Your task to perform on an android device: Go to ESPN.com Image 0: 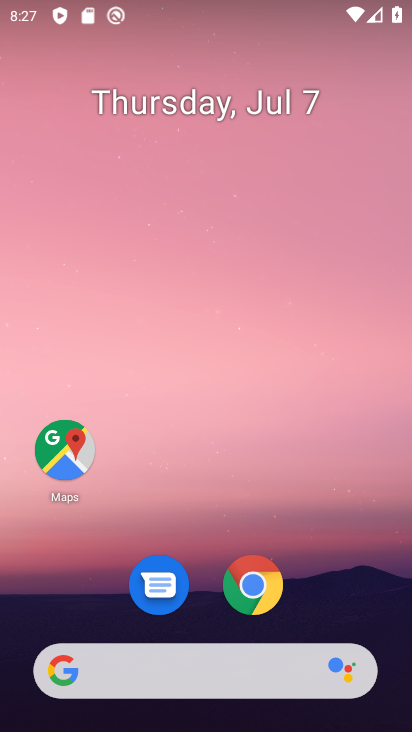
Step 0: click (267, 582)
Your task to perform on an android device: Go to ESPN.com Image 1: 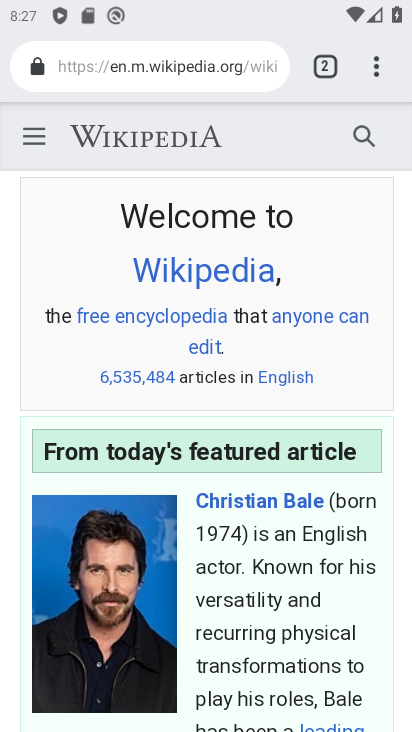
Step 1: click (378, 64)
Your task to perform on an android device: Go to ESPN.com Image 2: 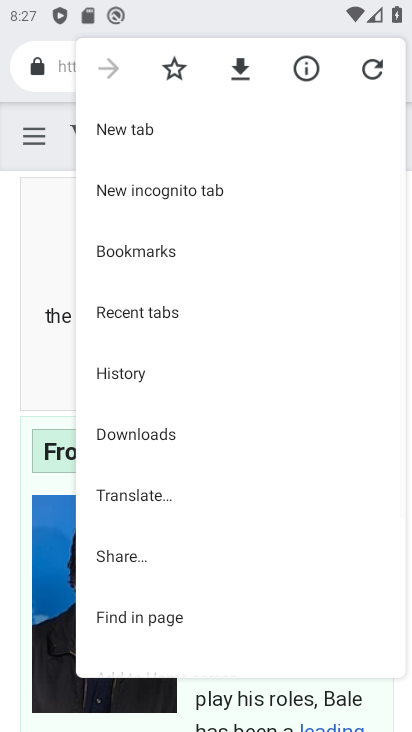
Step 2: click (196, 123)
Your task to perform on an android device: Go to ESPN.com Image 3: 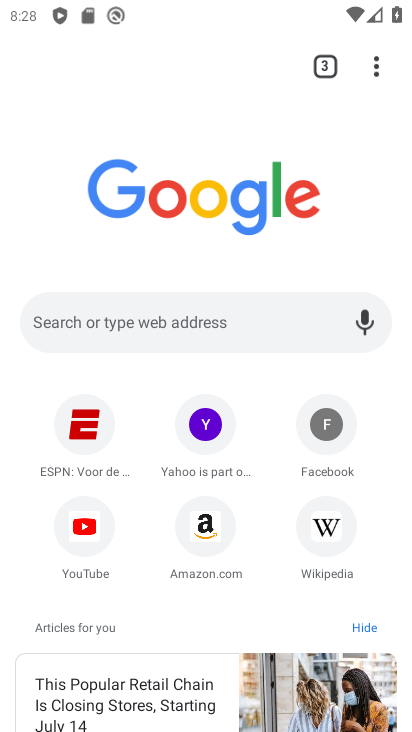
Step 3: click (164, 316)
Your task to perform on an android device: Go to ESPN.com Image 4: 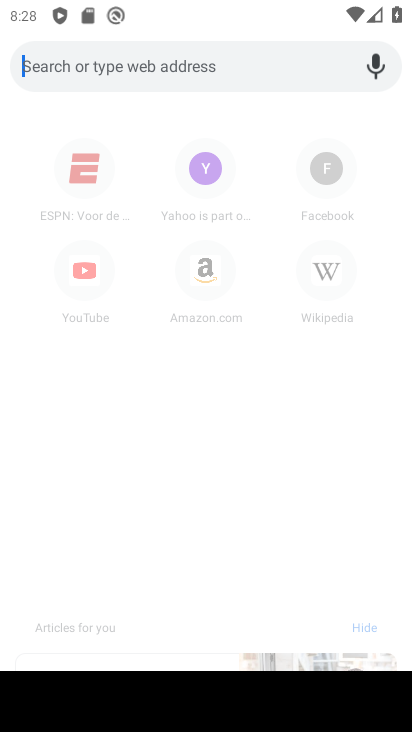
Step 4: type "espn.com"
Your task to perform on an android device: Go to ESPN.com Image 5: 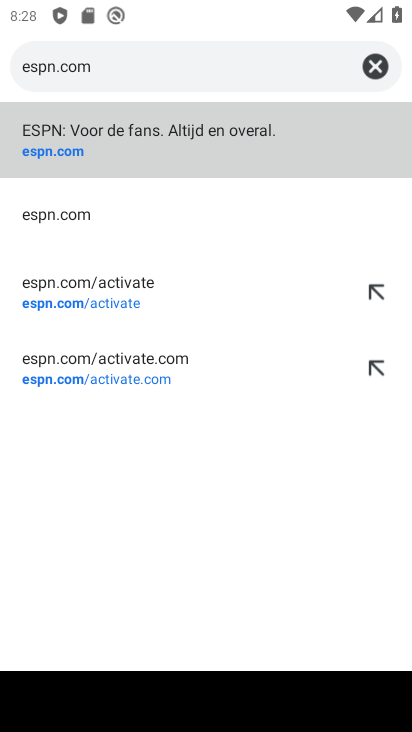
Step 5: click (65, 133)
Your task to perform on an android device: Go to ESPN.com Image 6: 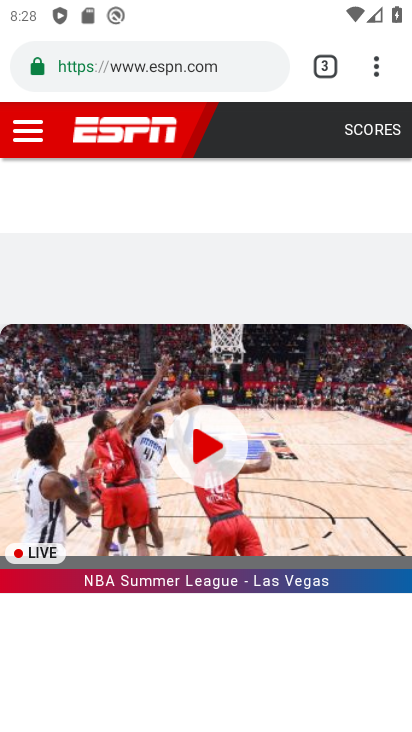
Step 6: task complete